Your task to perform on an android device: all mails in gmail Image 0: 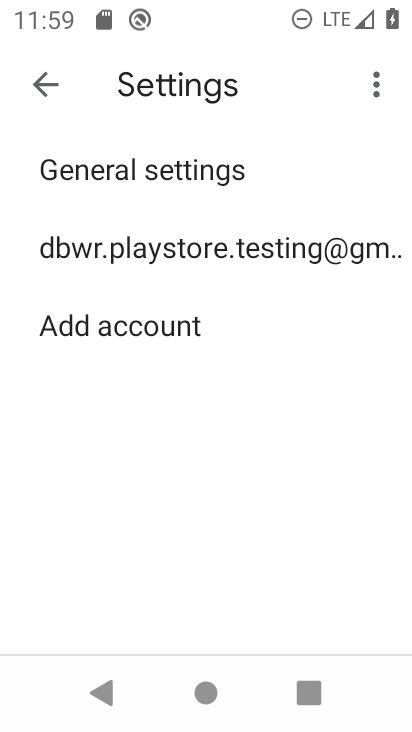
Step 0: press home button
Your task to perform on an android device: all mails in gmail Image 1: 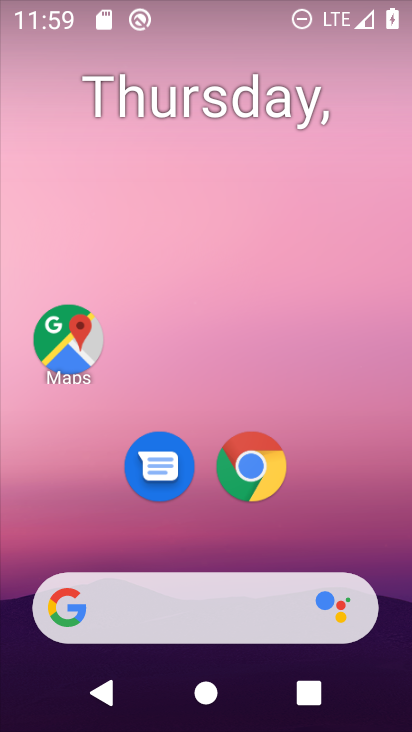
Step 1: drag from (233, 533) to (265, 22)
Your task to perform on an android device: all mails in gmail Image 2: 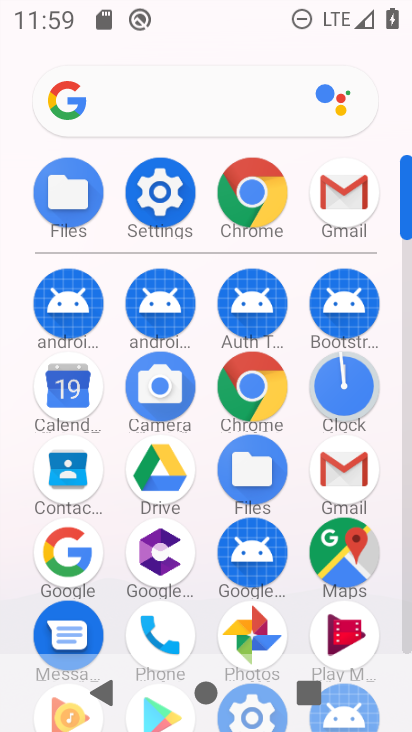
Step 2: click (329, 471)
Your task to perform on an android device: all mails in gmail Image 3: 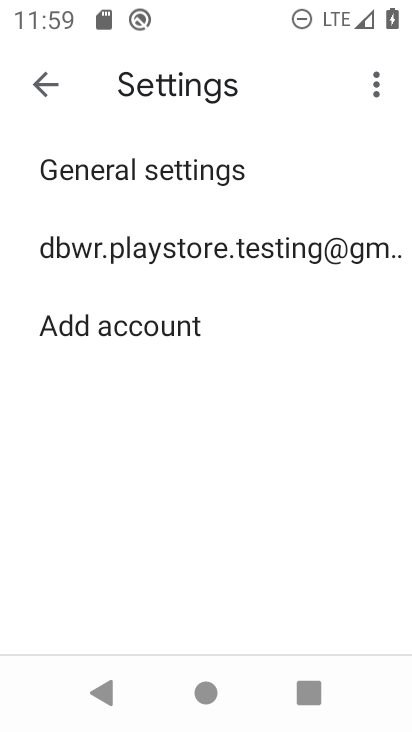
Step 3: press back button
Your task to perform on an android device: all mails in gmail Image 4: 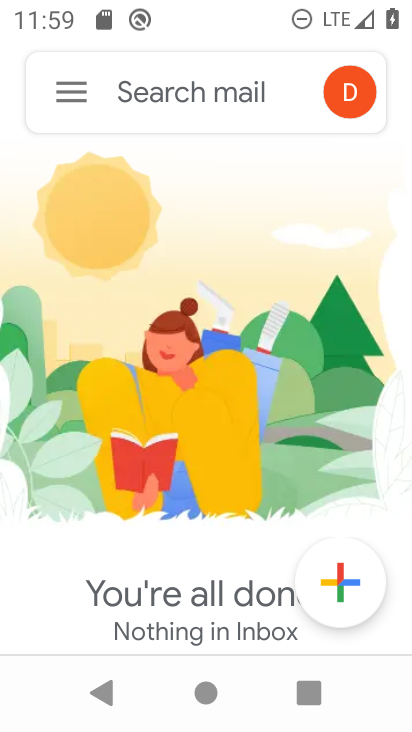
Step 4: click (75, 97)
Your task to perform on an android device: all mails in gmail Image 5: 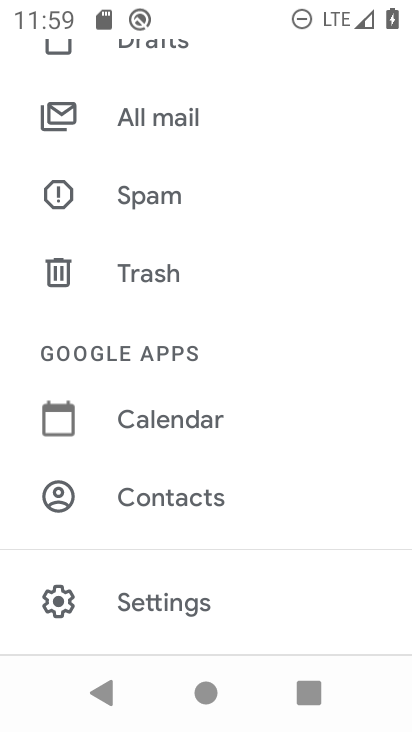
Step 5: click (170, 109)
Your task to perform on an android device: all mails in gmail Image 6: 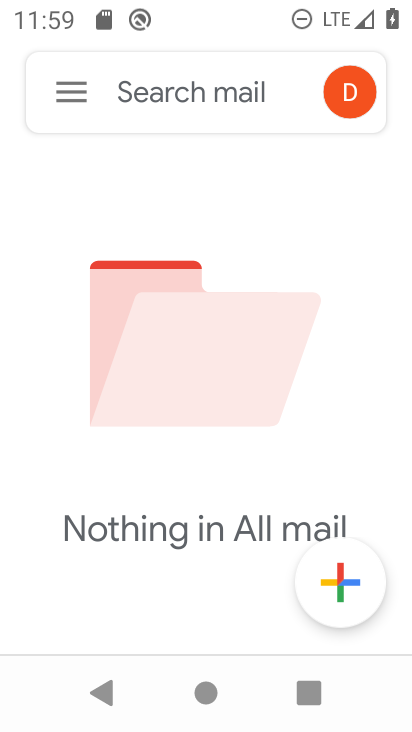
Step 6: task complete